Your task to perform on an android device: turn on notifications settings in the gmail app Image 0: 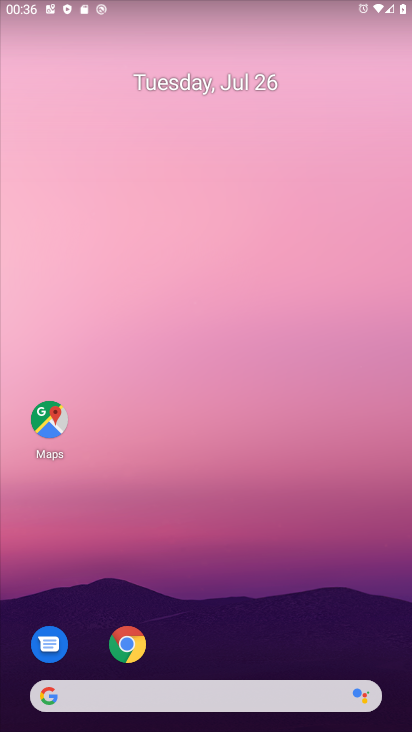
Step 0: drag from (228, 602) to (225, 372)
Your task to perform on an android device: turn on notifications settings in the gmail app Image 1: 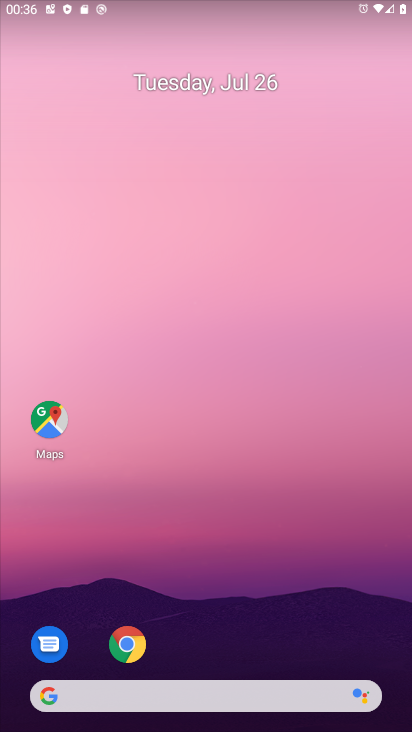
Step 1: click (266, 297)
Your task to perform on an android device: turn on notifications settings in the gmail app Image 2: 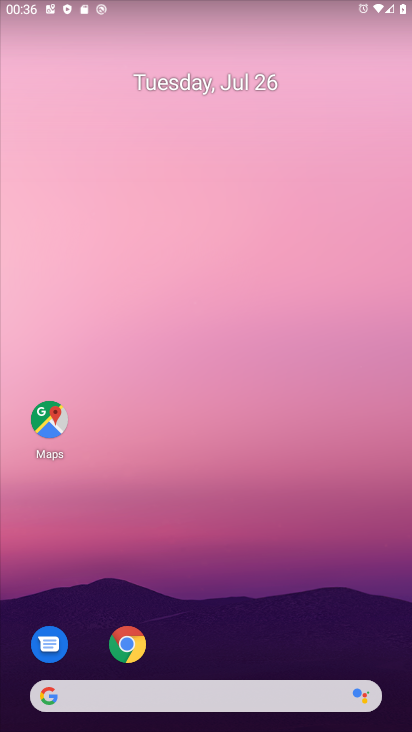
Step 2: drag from (233, 628) to (180, 170)
Your task to perform on an android device: turn on notifications settings in the gmail app Image 3: 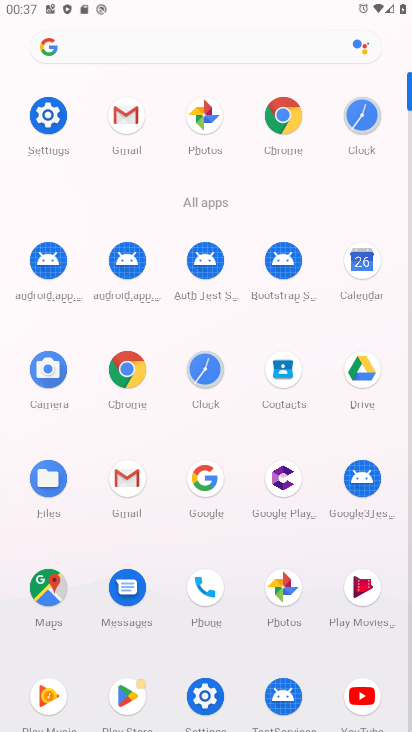
Step 3: click (131, 107)
Your task to perform on an android device: turn on notifications settings in the gmail app Image 4: 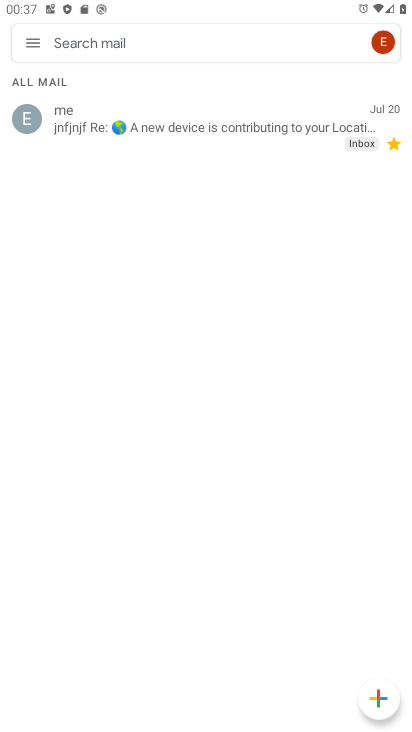
Step 4: click (39, 45)
Your task to perform on an android device: turn on notifications settings in the gmail app Image 5: 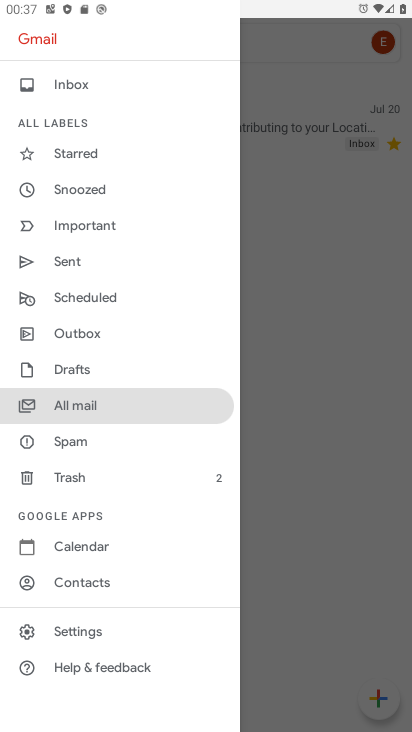
Step 5: click (100, 631)
Your task to perform on an android device: turn on notifications settings in the gmail app Image 6: 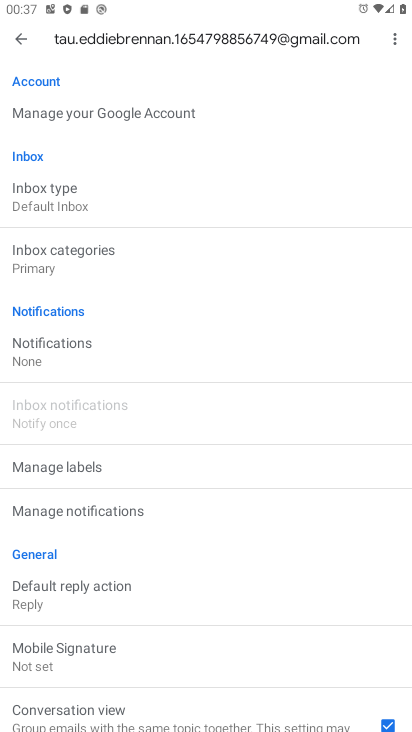
Step 6: click (118, 350)
Your task to perform on an android device: turn on notifications settings in the gmail app Image 7: 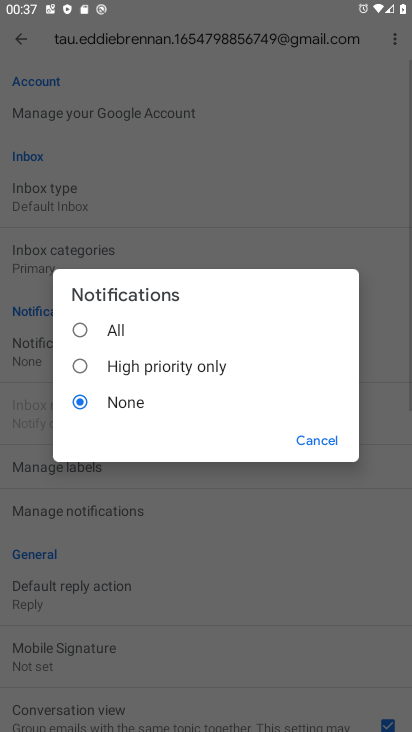
Step 7: click (113, 326)
Your task to perform on an android device: turn on notifications settings in the gmail app Image 8: 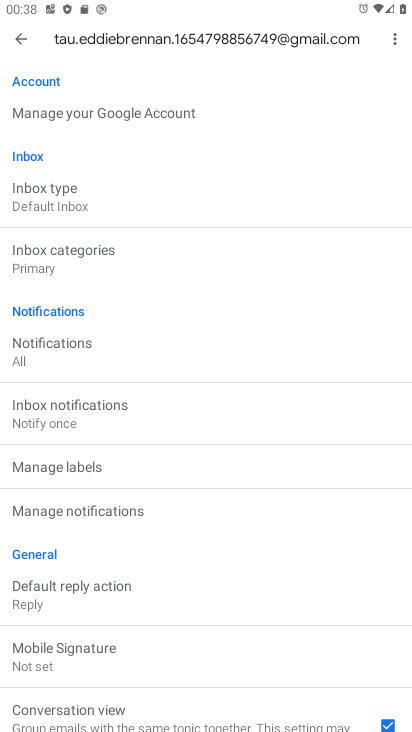
Step 8: click (64, 362)
Your task to perform on an android device: turn on notifications settings in the gmail app Image 9: 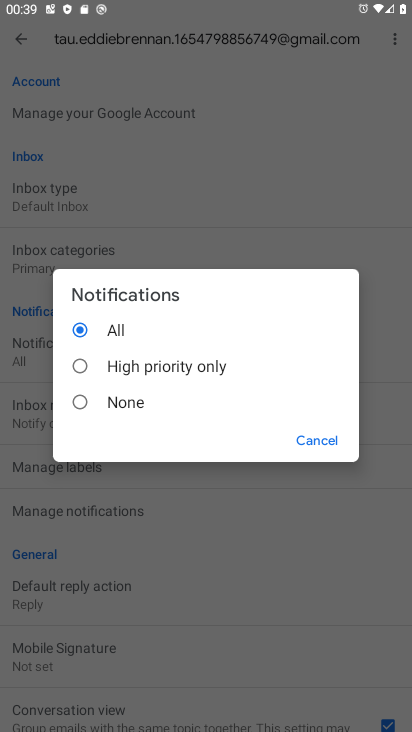
Step 9: task complete